Your task to perform on an android device: Open the Play Movies app and select the watchlist tab. Image 0: 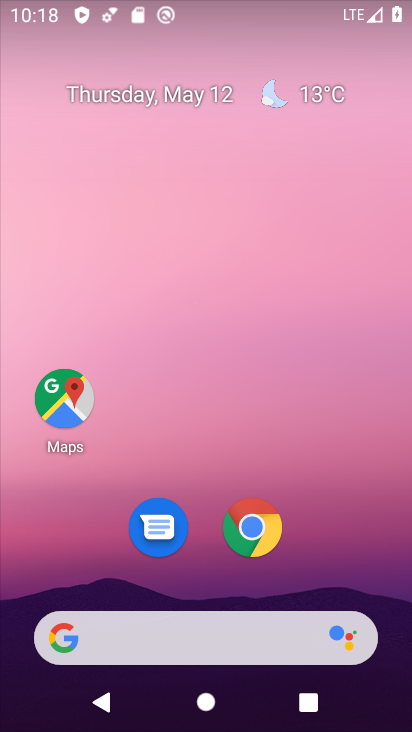
Step 0: drag from (325, 519) to (358, 119)
Your task to perform on an android device: Open the Play Movies app and select the watchlist tab. Image 1: 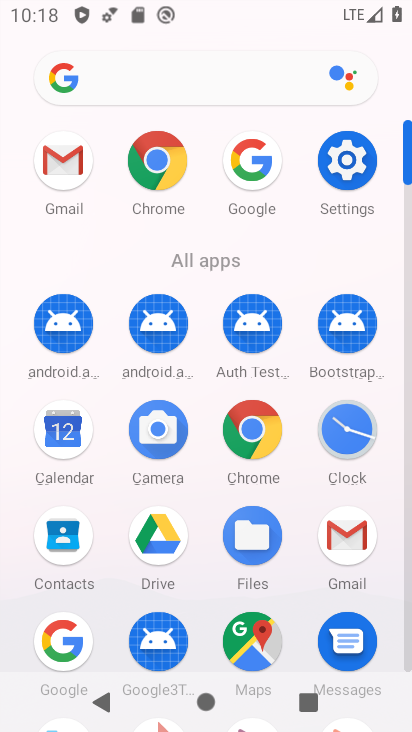
Step 1: drag from (300, 399) to (320, 137)
Your task to perform on an android device: Open the Play Movies app and select the watchlist tab. Image 2: 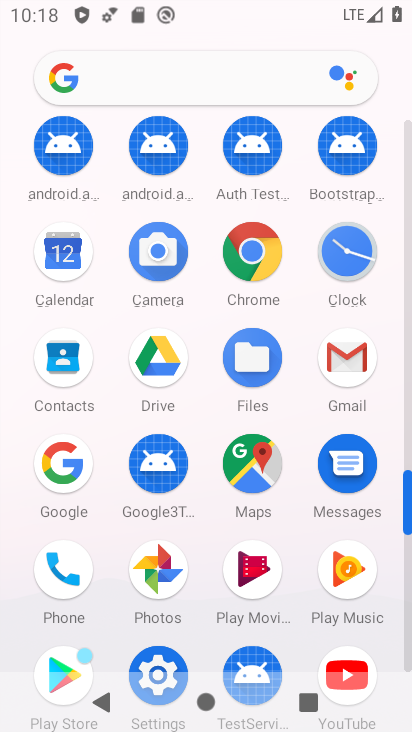
Step 2: click (245, 563)
Your task to perform on an android device: Open the Play Movies app and select the watchlist tab. Image 3: 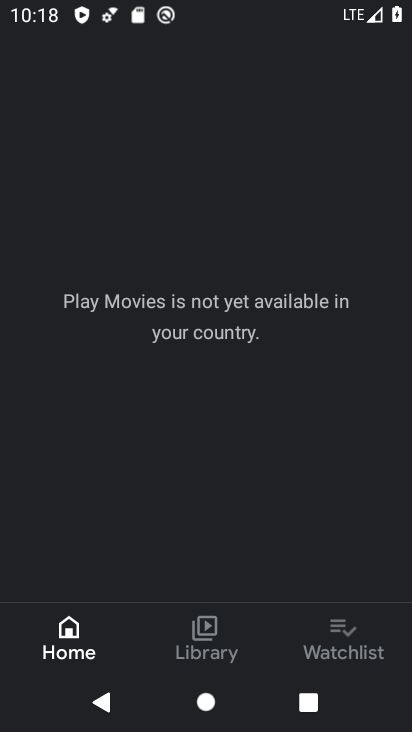
Step 3: click (341, 647)
Your task to perform on an android device: Open the Play Movies app and select the watchlist tab. Image 4: 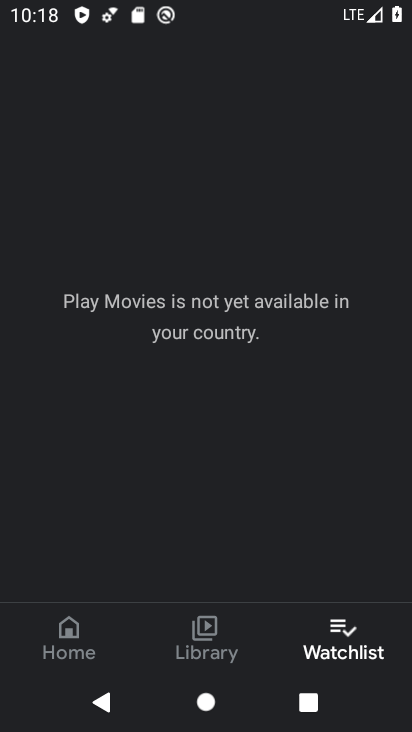
Step 4: task complete